Your task to perform on an android device: change the clock display to show seconds Image 0: 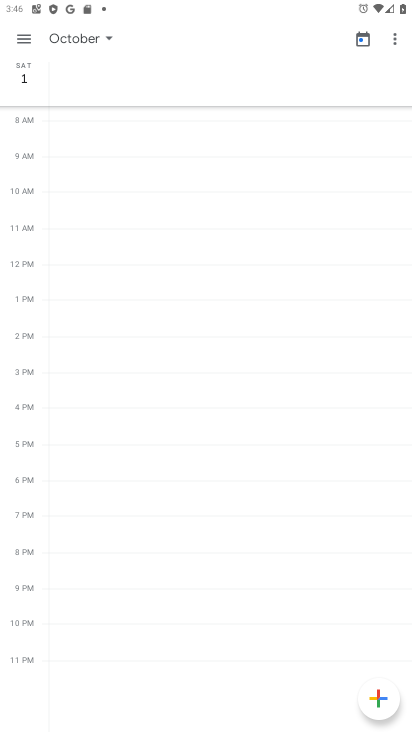
Step 0: press home button
Your task to perform on an android device: change the clock display to show seconds Image 1: 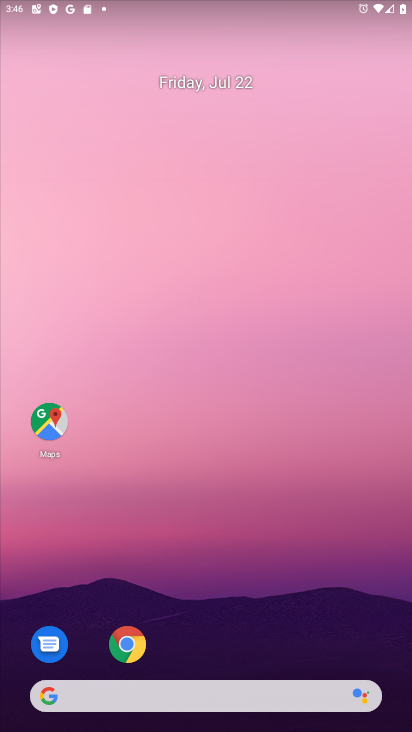
Step 1: drag from (300, 612) to (287, 198)
Your task to perform on an android device: change the clock display to show seconds Image 2: 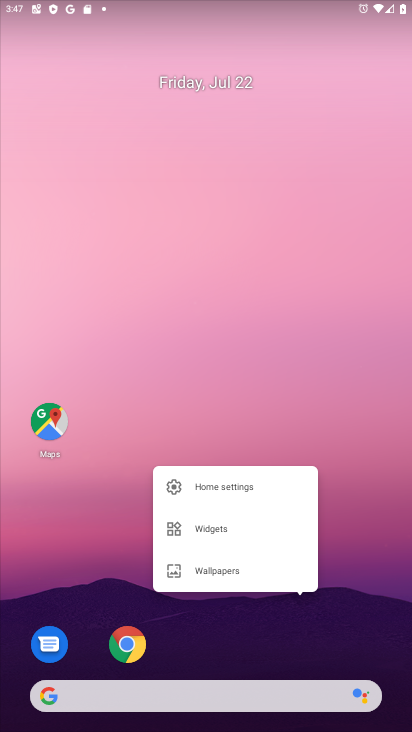
Step 2: click (350, 399)
Your task to perform on an android device: change the clock display to show seconds Image 3: 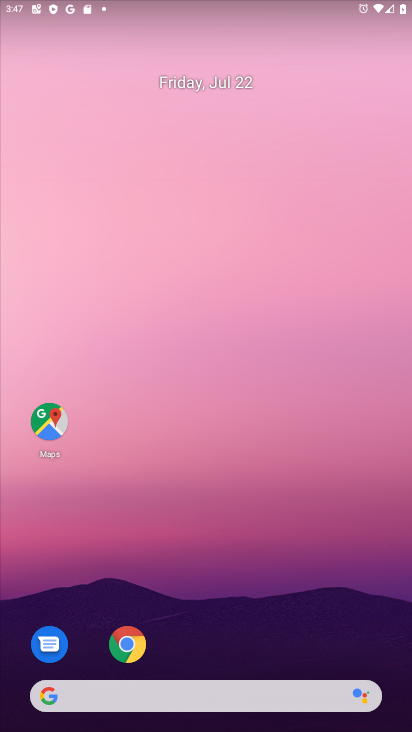
Step 3: drag from (317, 533) to (262, 156)
Your task to perform on an android device: change the clock display to show seconds Image 4: 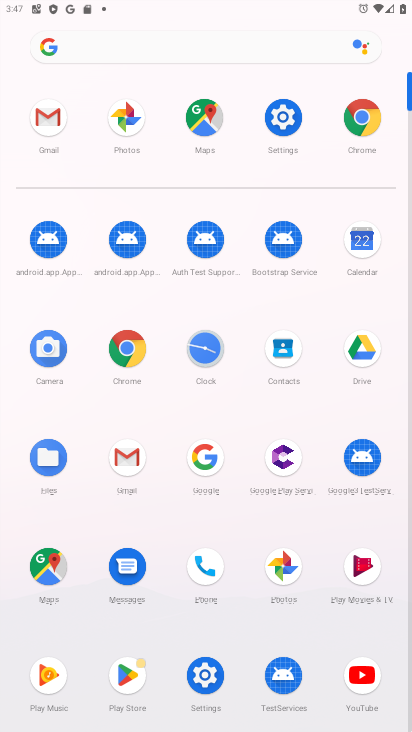
Step 4: click (201, 354)
Your task to perform on an android device: change the clock display to show seconds Image 5: 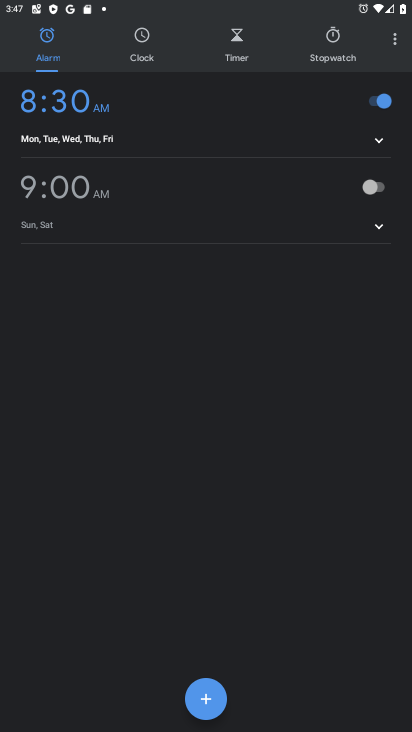
Step 5: click (398, 37)
Your task to perform on an android device: change the clock display to show seconds Image 6: 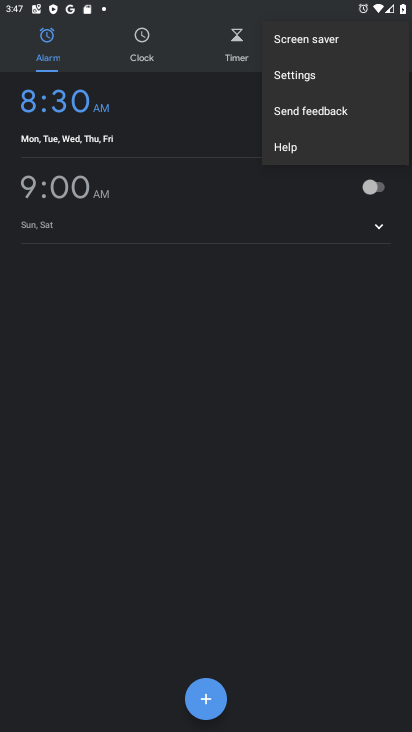
Step 6: click (325, 79)
Your task to perform on an android device: change the clock display to show seconds Image 7: 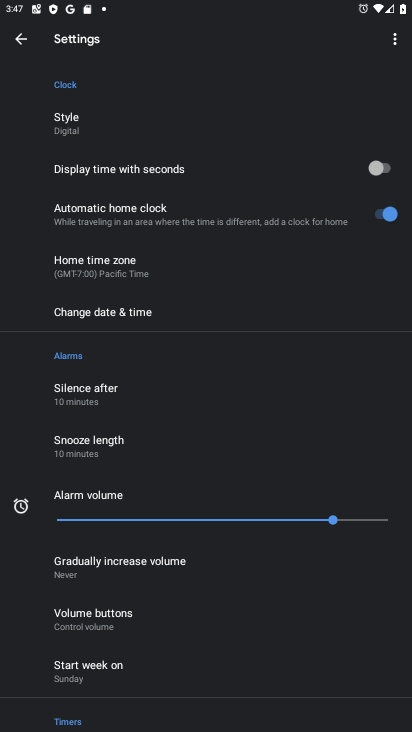
Step 7: click (381, 168)
Your task to perform on an android device: change the clock display to show seconds Image 8: 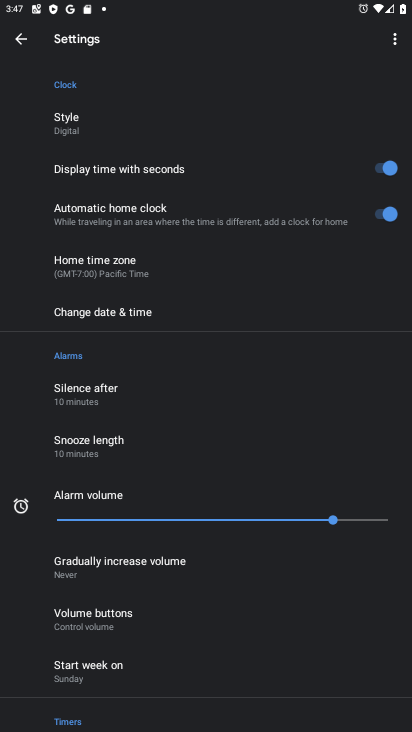
Step 8: task complete